Your task to perform on an android device: How do I get to the nearest Home Depot? Image 0: 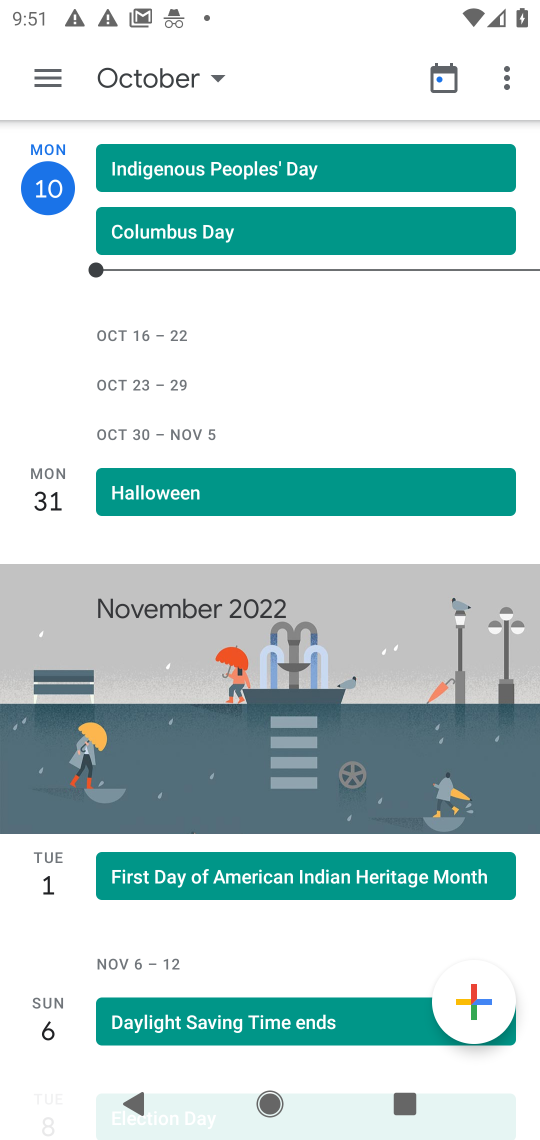
Step 0: press home button
Your task to perform on an android device: How do I get to the nearest Home Depot? Image 1: 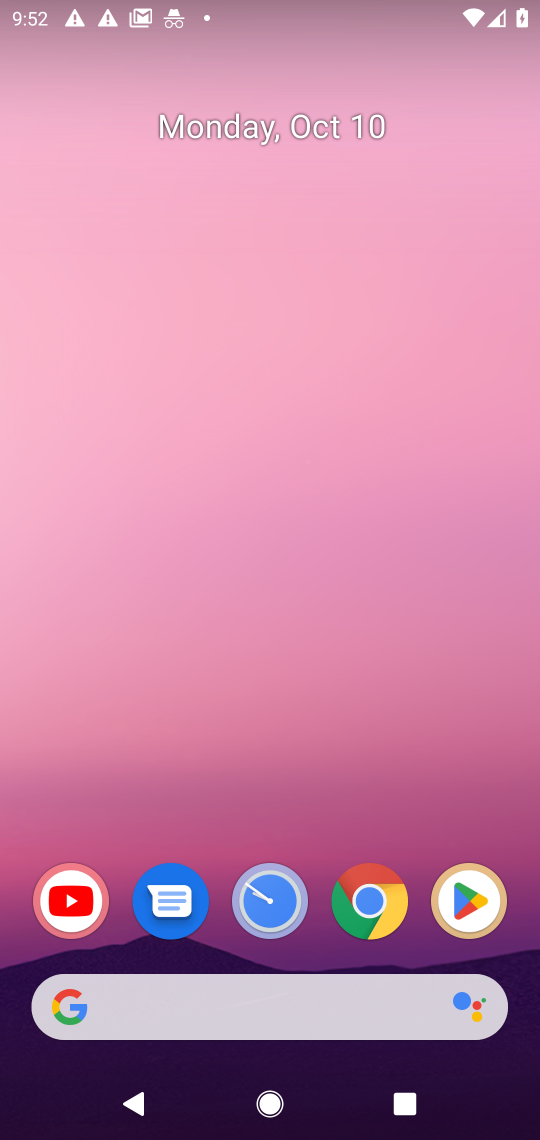
Step 1: click (314, 1003)
Your task to perform on an android device: How do I get to the nearest Home Depot? Image 2: 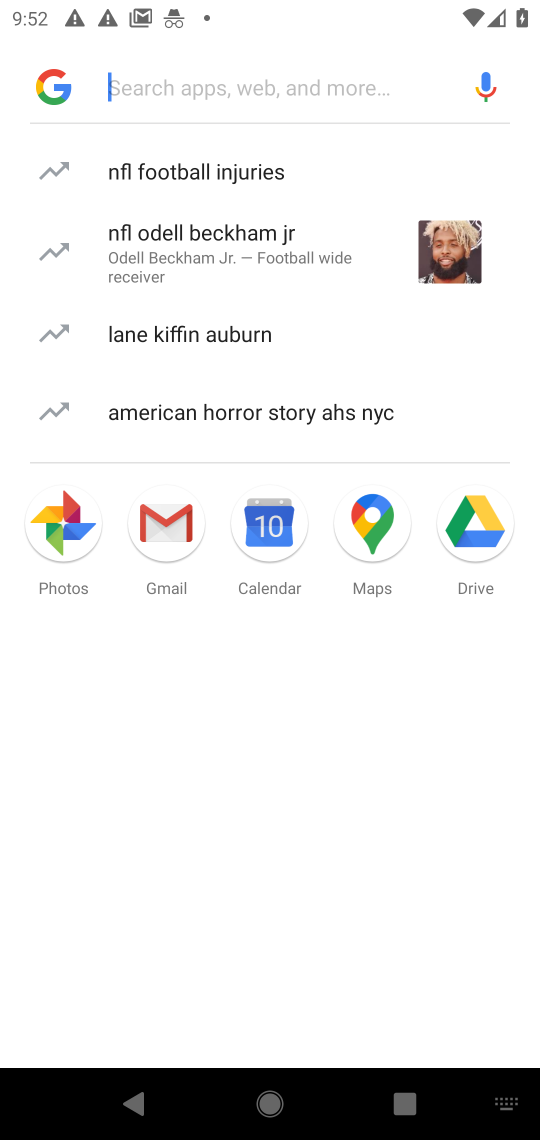
Step 2: type "How do I get to the nearest Home Depot"
Your task to perform on an android device: How do I get to the nearest Home Depot? Image 3: 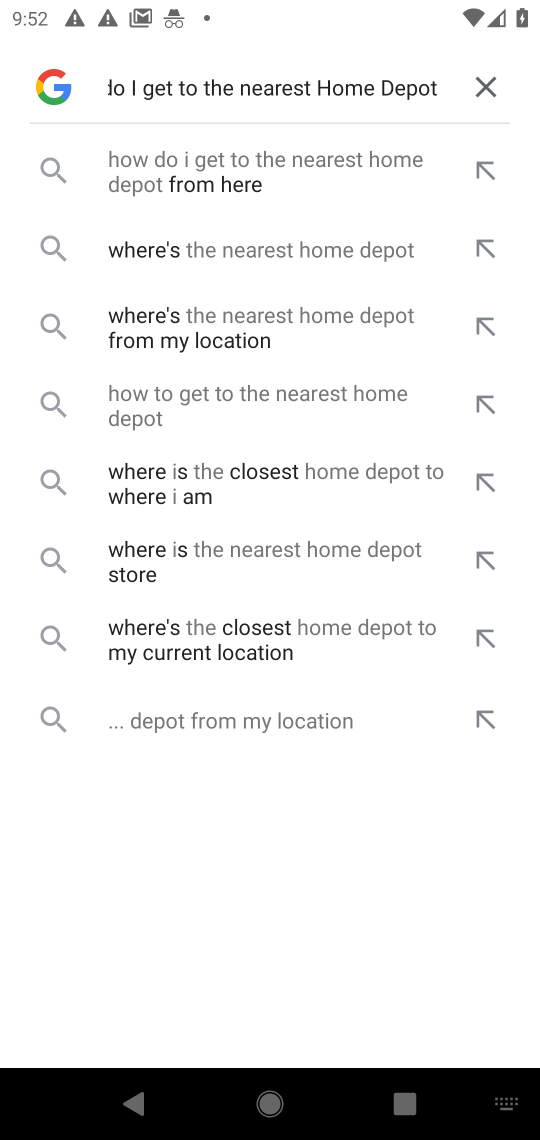
Step 3: press enter
Your task to perform on an android device: How do I get to the nearest Home Depot? Image 4: 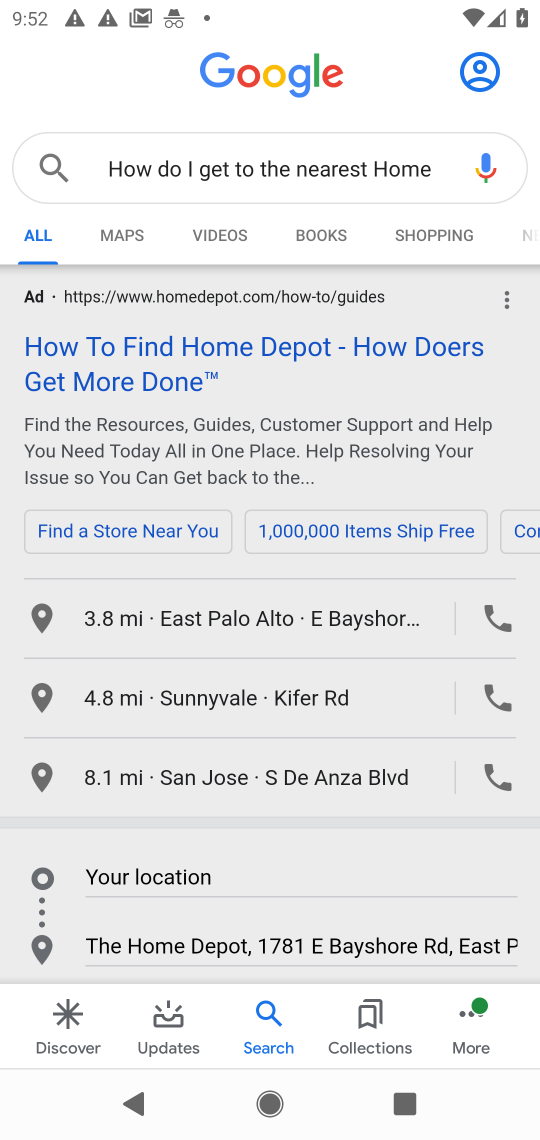
Step 4: task complete